Your task to perform on an android device: Open calendar and show me the first week of next month Image 0: 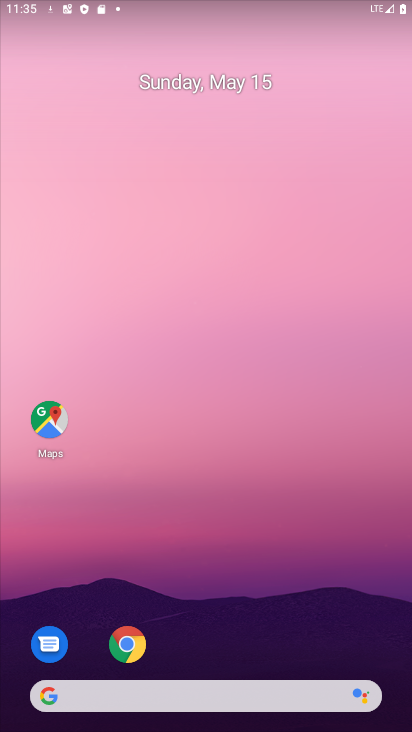
Step 0: drag from (238, 721) to (209, 221)
Your task to perform on an android device: Open calendar and show me the first week of next month Image 1: 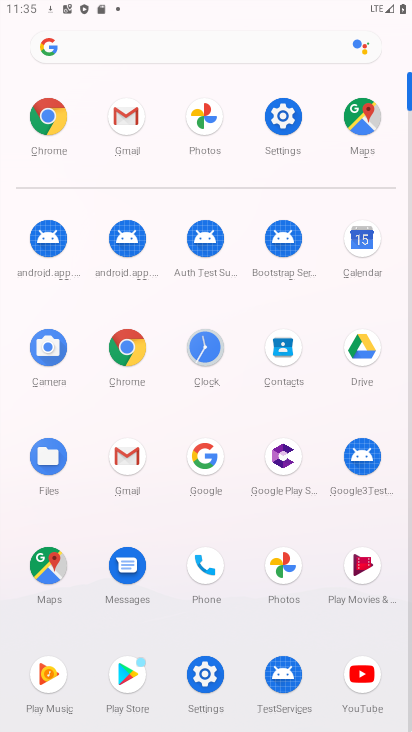
Step 1: click (344, 242)
Your task to perform on an android device: Open calendar and show me the first week of next month Image 2: 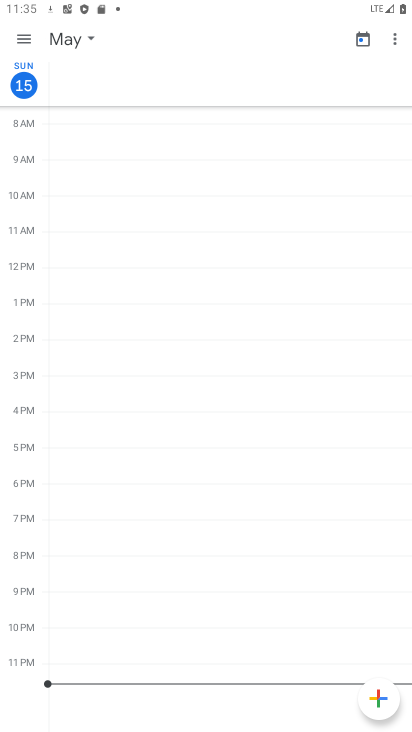
Step 2: click (19, 43)
Your task to perform on an android device: Open calendar and show me the first week of next month Image 3: 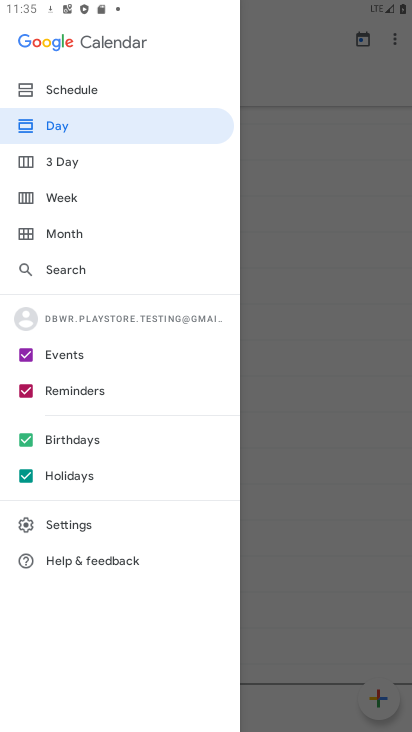
Step 3: click (82, 230)
Your task to perform on an android device: Open calendar and show me the first week of next month Image 4: 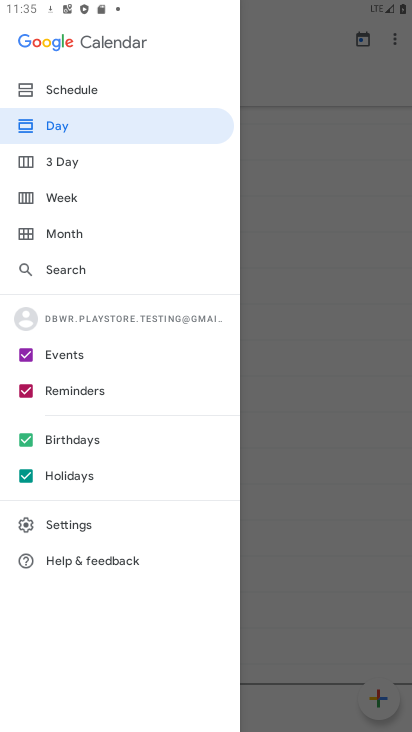
Step 4: click (85, 227)
Your task to perform on an android device: Open calendar and show me the first week of next month Image 5: 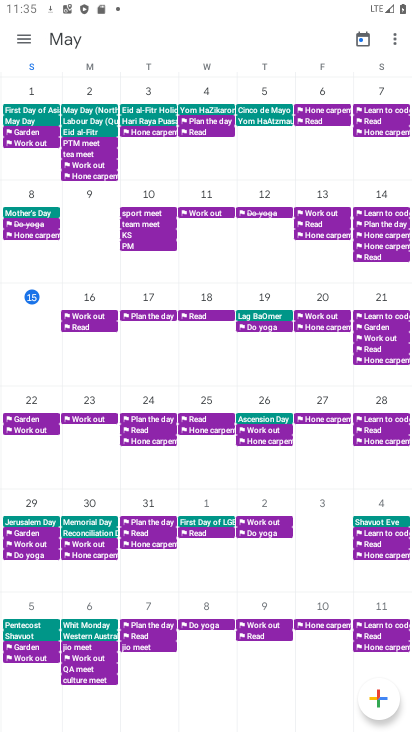
Step 5: drag from (371, 384) to (6, 576)
Your task to perform on an android device: Open calendar and show me the first week of next month Image 6: 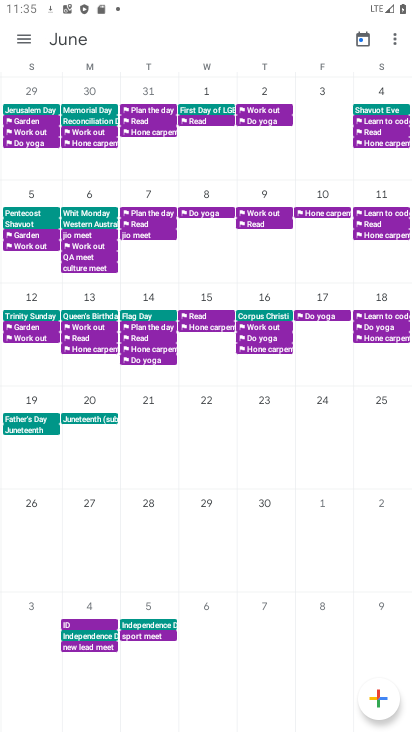
Step 6: click (210, 97)
Your task to perform on an android device: Open calendar and show me the first week of next month Image 7: 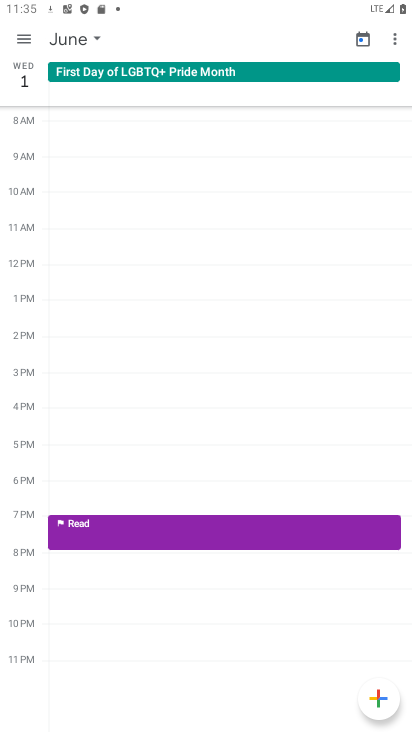
Step 7: task complete